Your task to perform on an android device: Go to eBay Image 0: 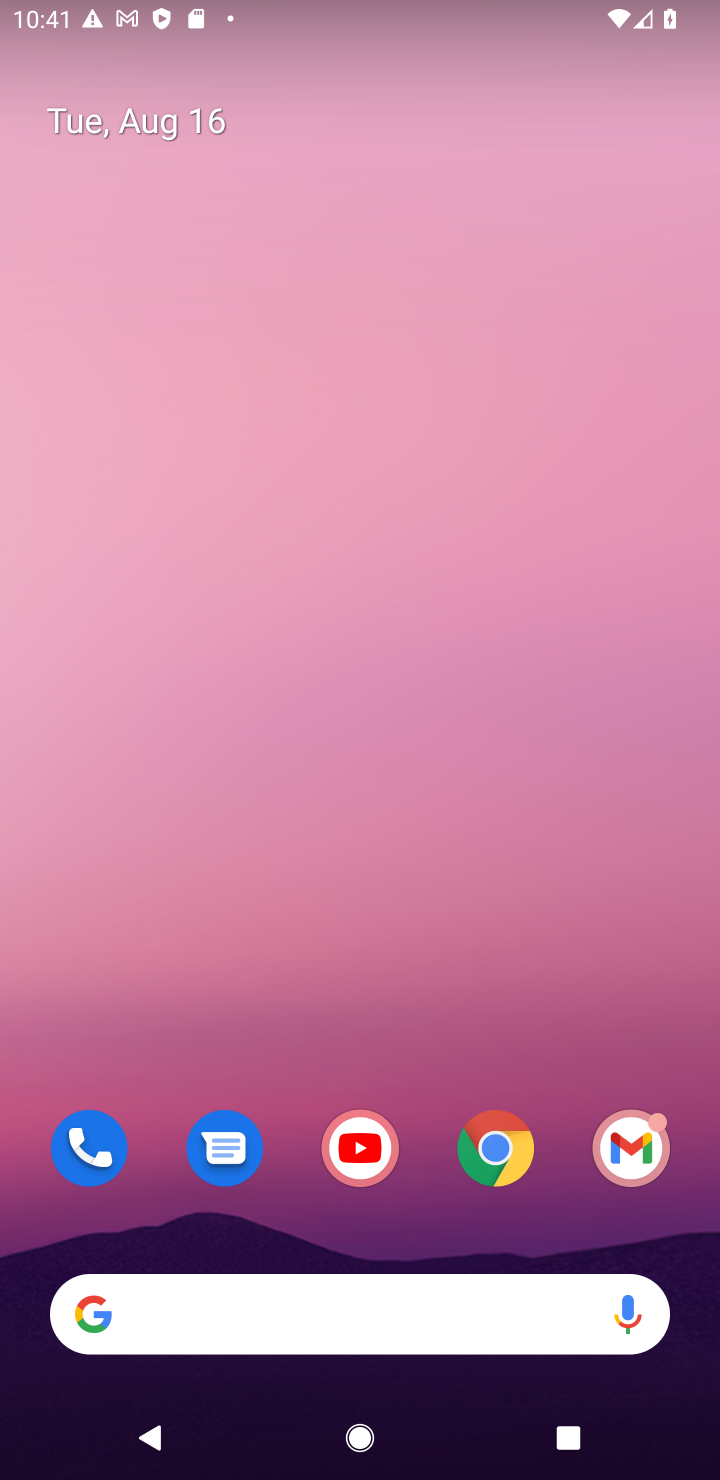
Step 0: press home button
Your task to perform on an android device: Go to eBay Image 1: 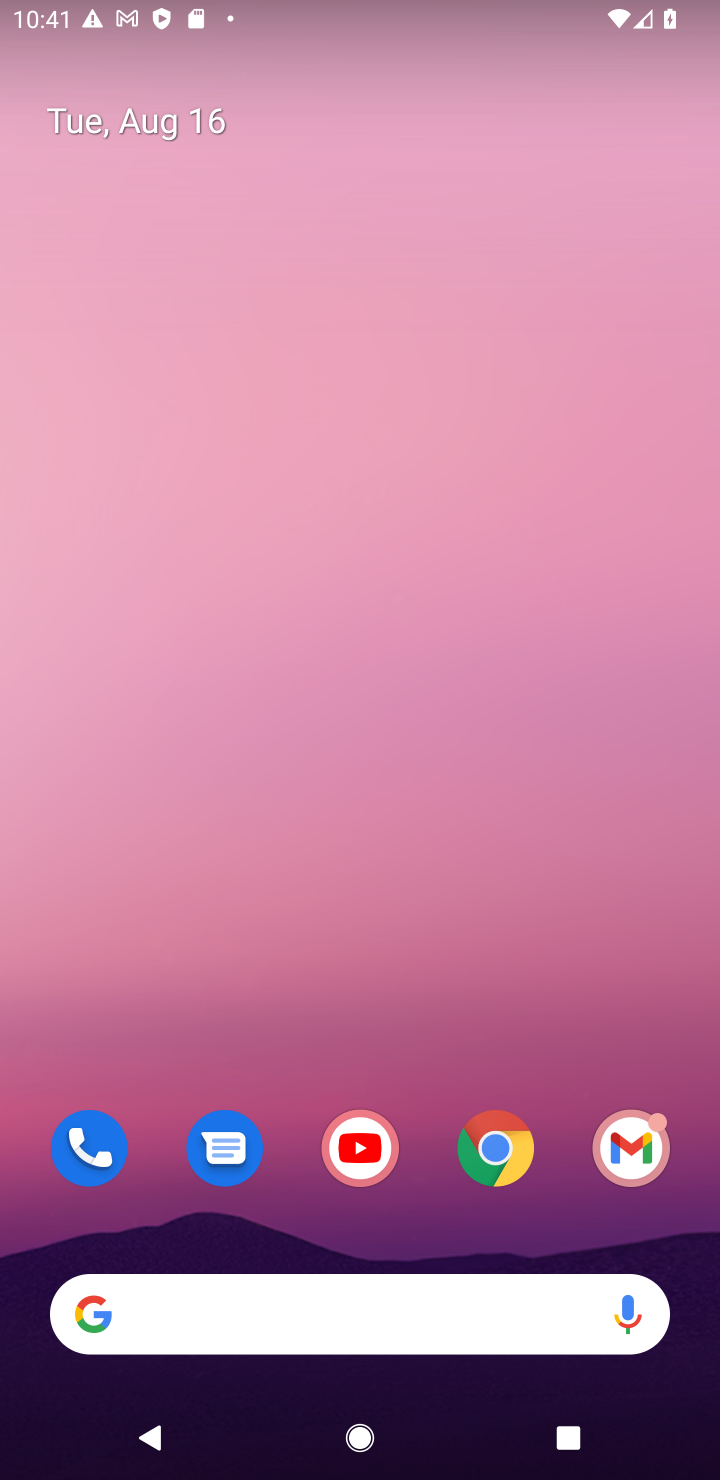
Step 1: click (491, 1126)
Your task to perform on an android device: Go to eBay Image 2: 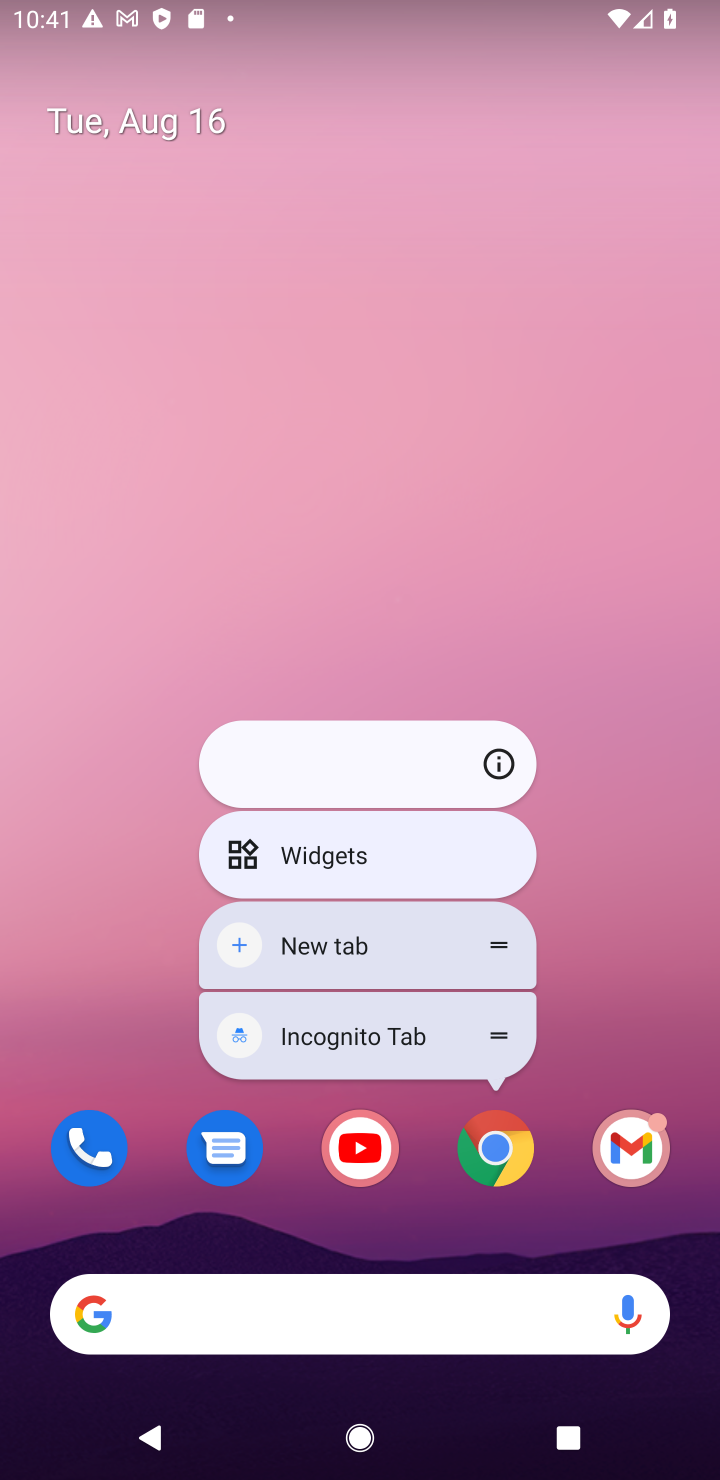
Step 2: click (484, 772)
Your task to perform on an android device: Go to eBay Image 3: 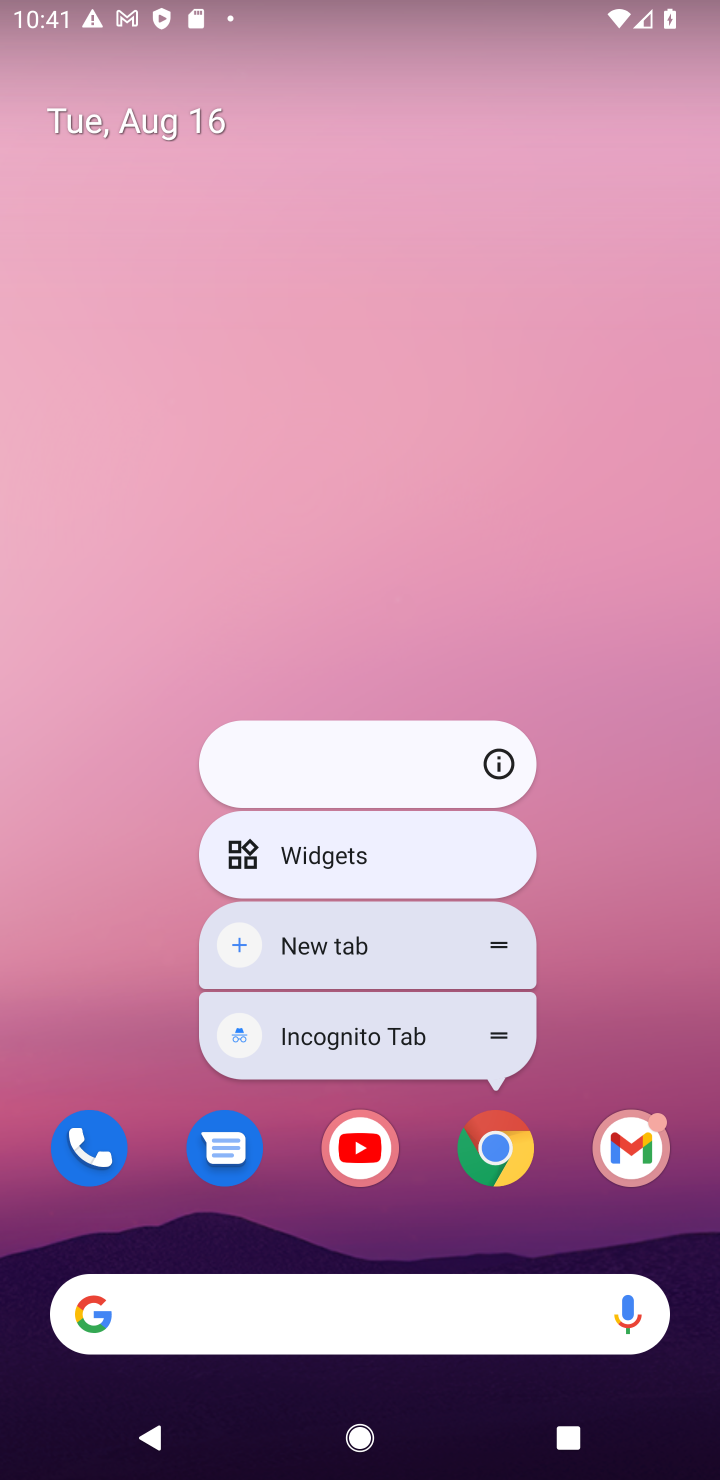
Step 3: click (502, 766)
Your task to perform on an android device: Go to eBay Image 4: 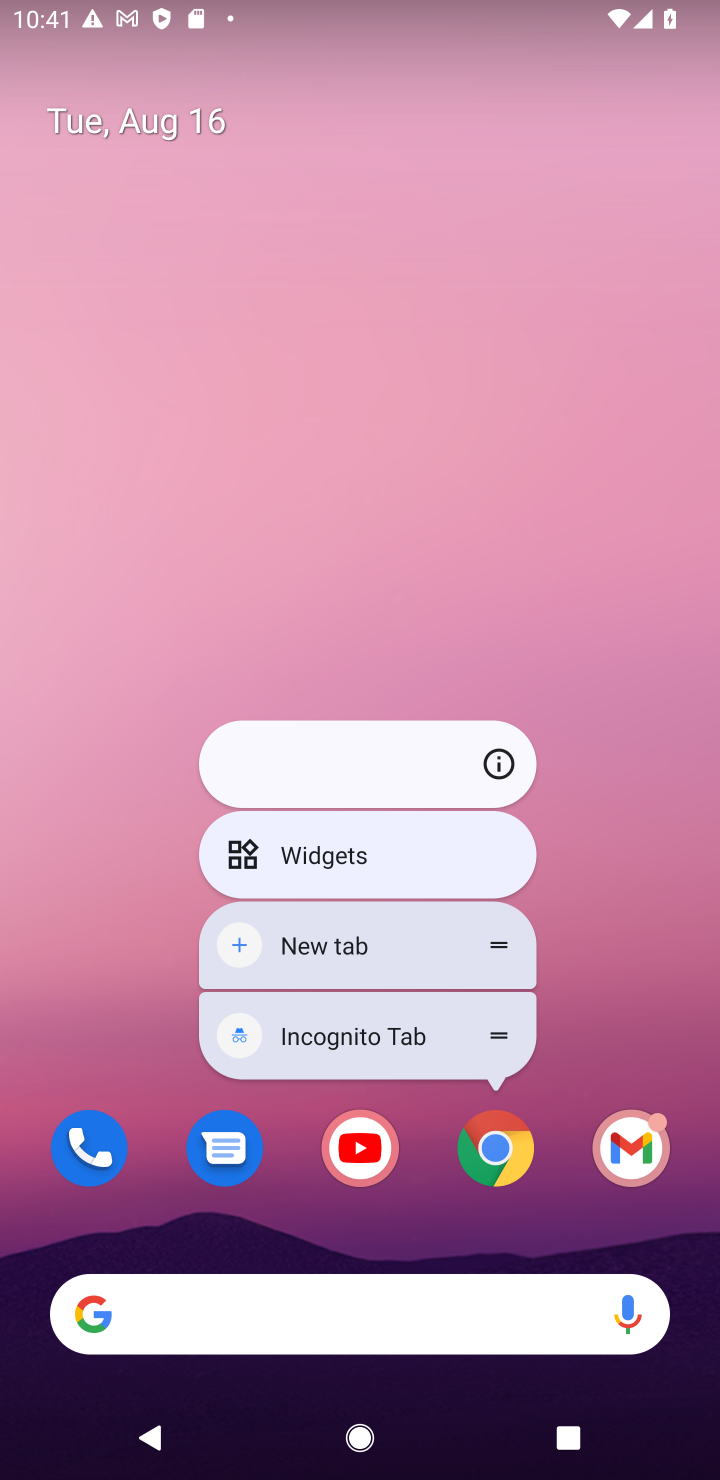
Step 4: click (492, 758)
Your task to perform on an android device: Go to eBay Image 5: 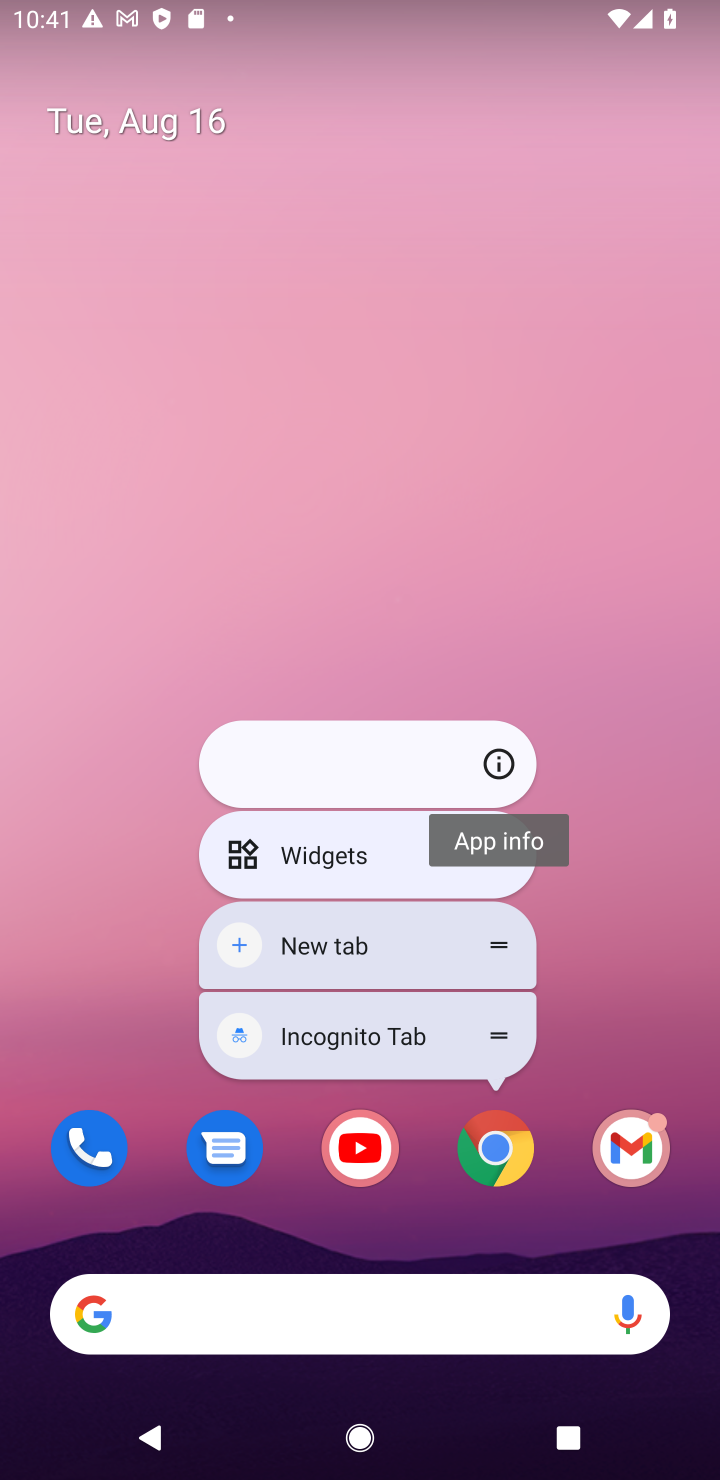
Step 5: click (492, 758)
Your task to perform on an android device: Go to eBay Image 6: 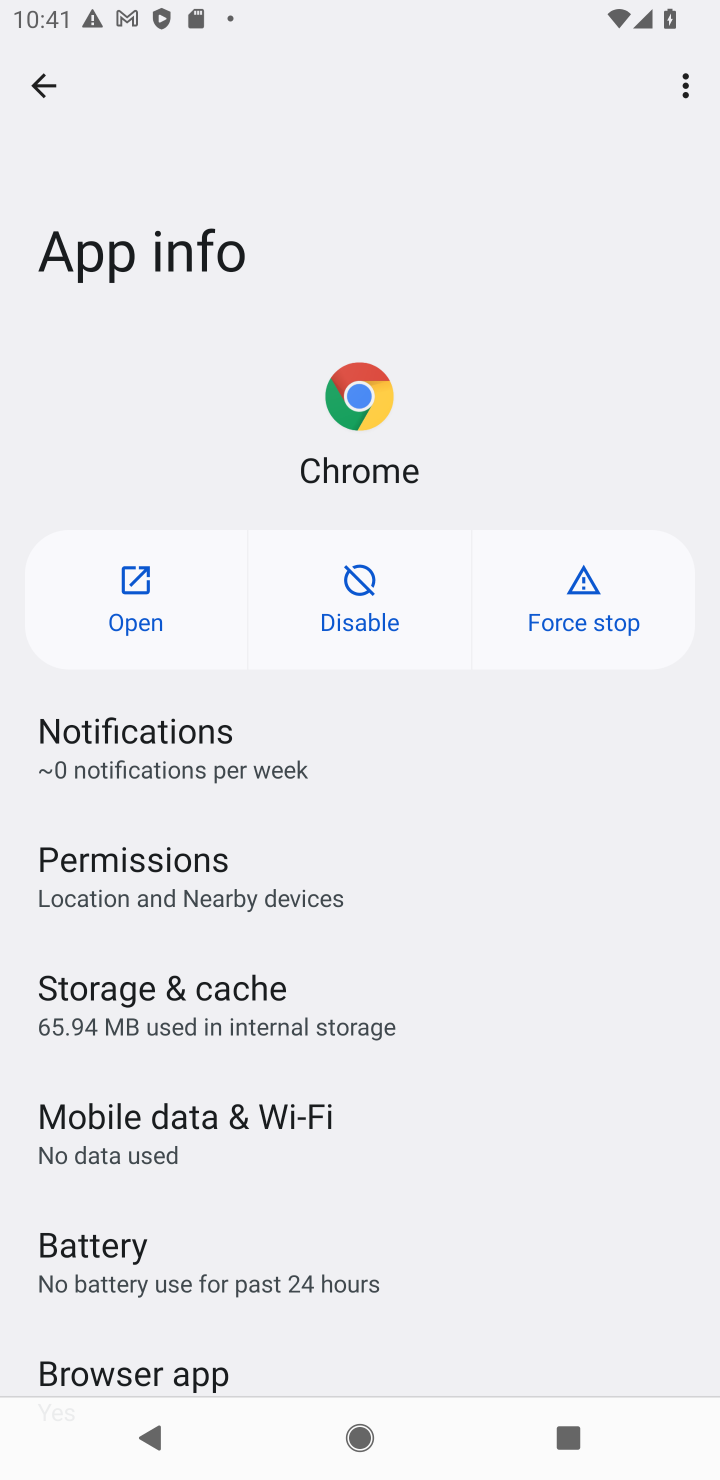
Step 6: press home button
Your task to perform on an android device: Go to eBay Image 7: 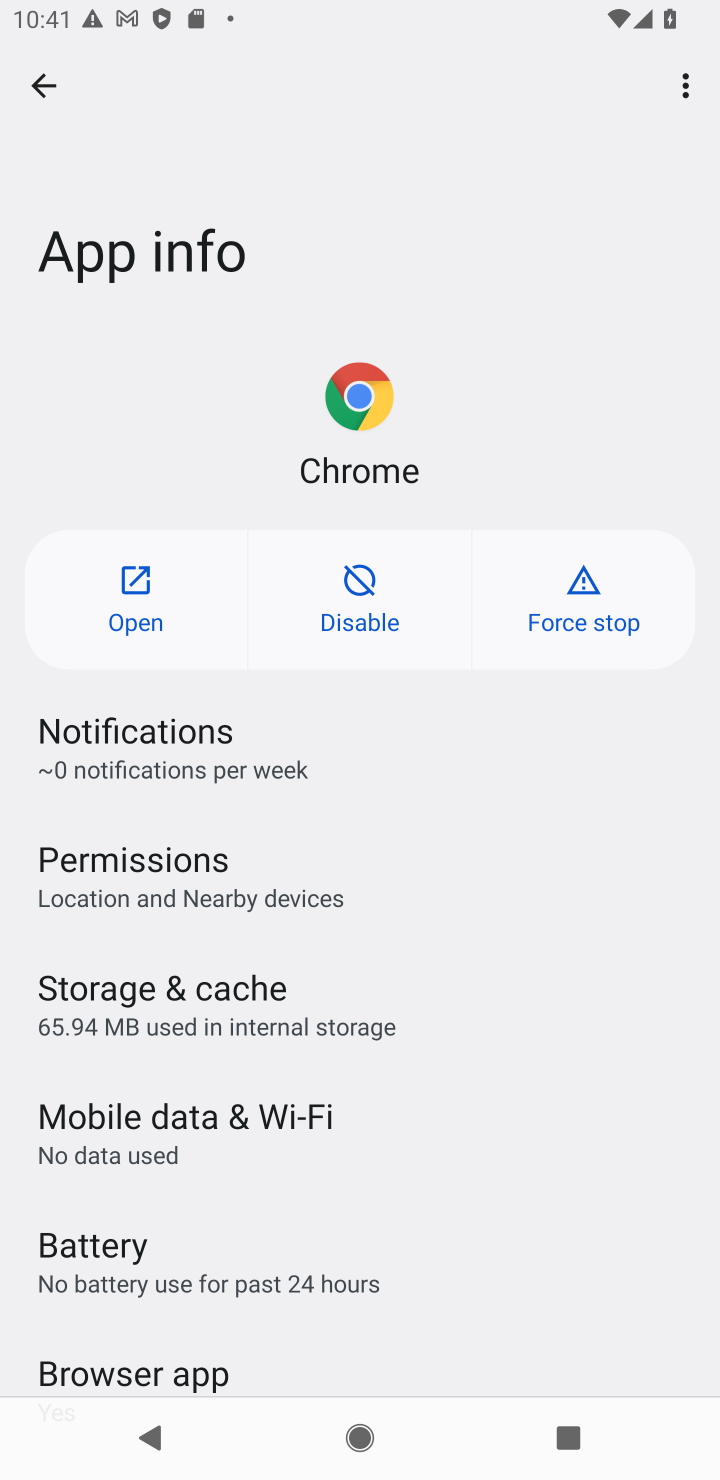
Step 7: press home button
Your task to perform on an android device: Go to eBay Image 8: 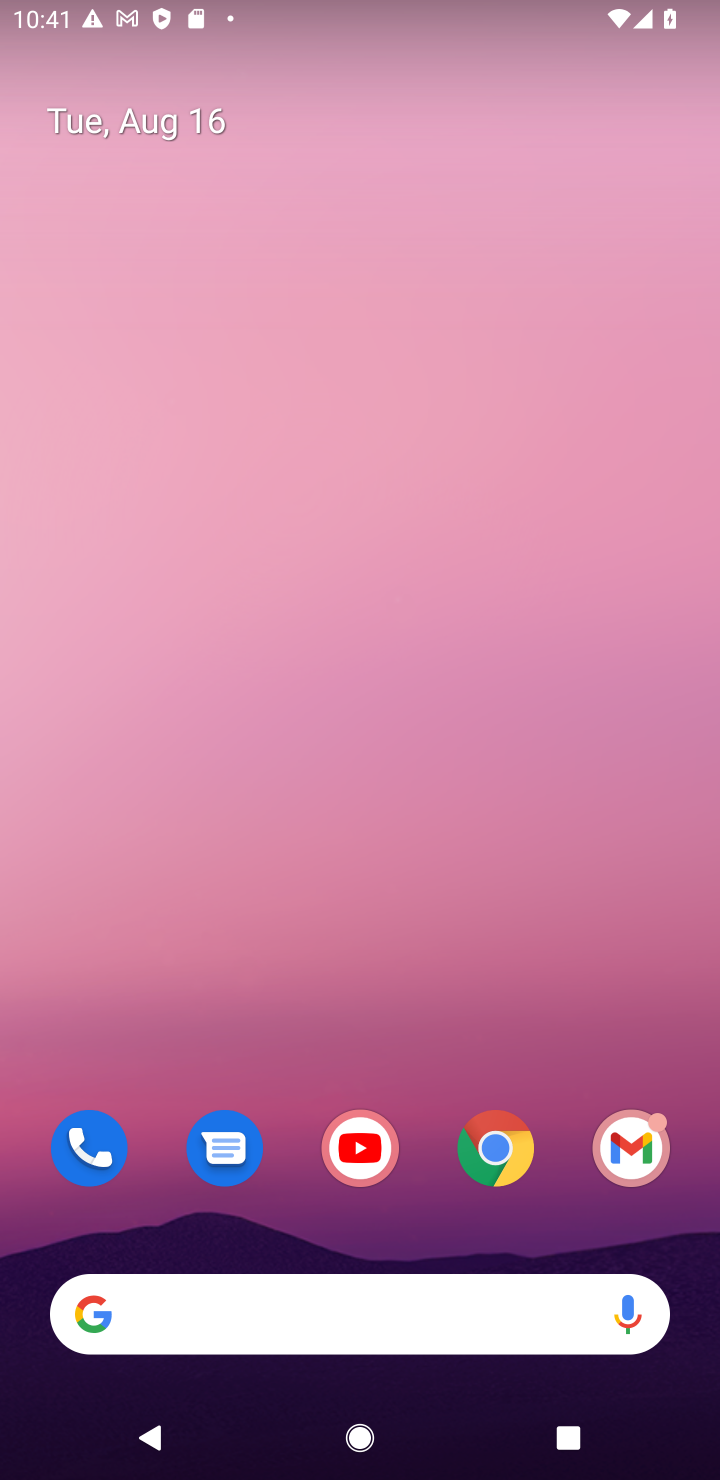
Step 8: click (501, 1137)
Your task to perform on an android device: Go to eBay Image 9: 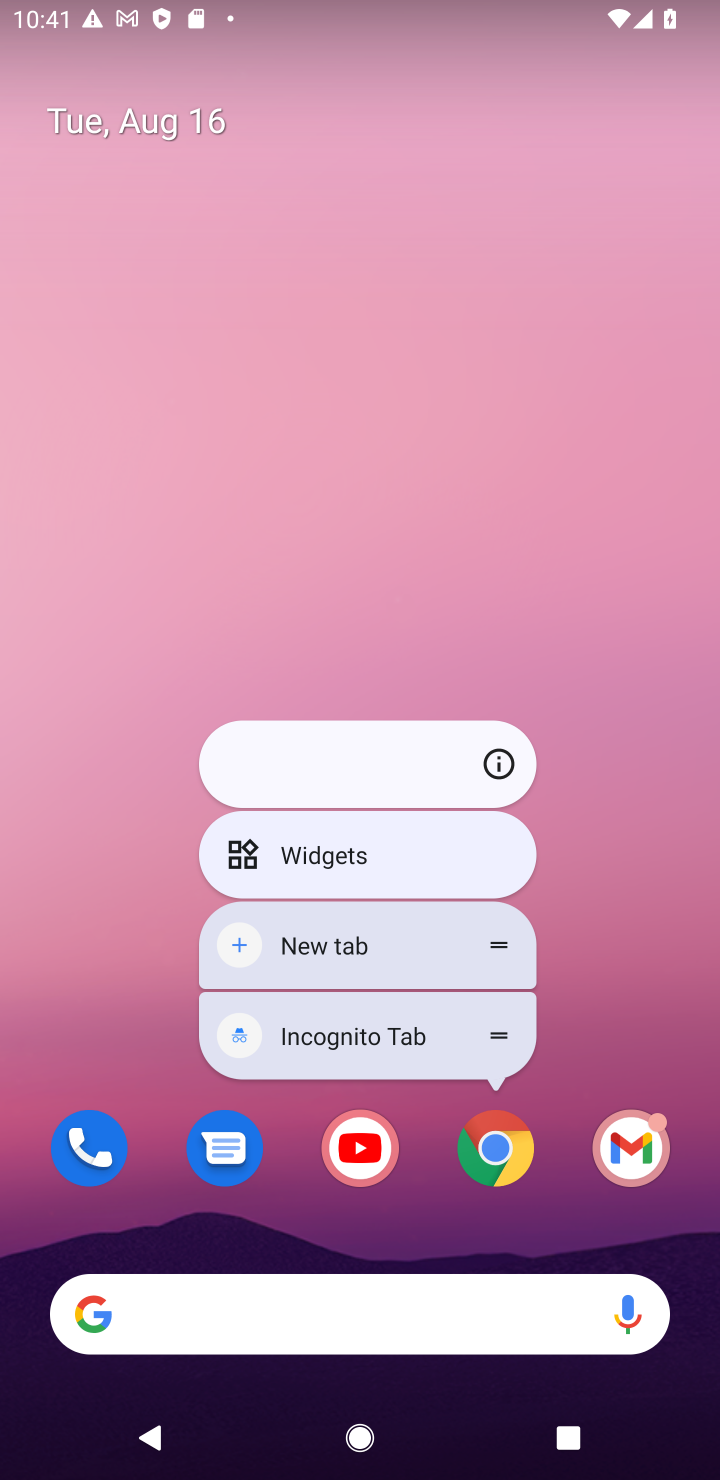
Step 9: click (499, 1163)
Your task to perform on an android device: Go to eBay Image 10: 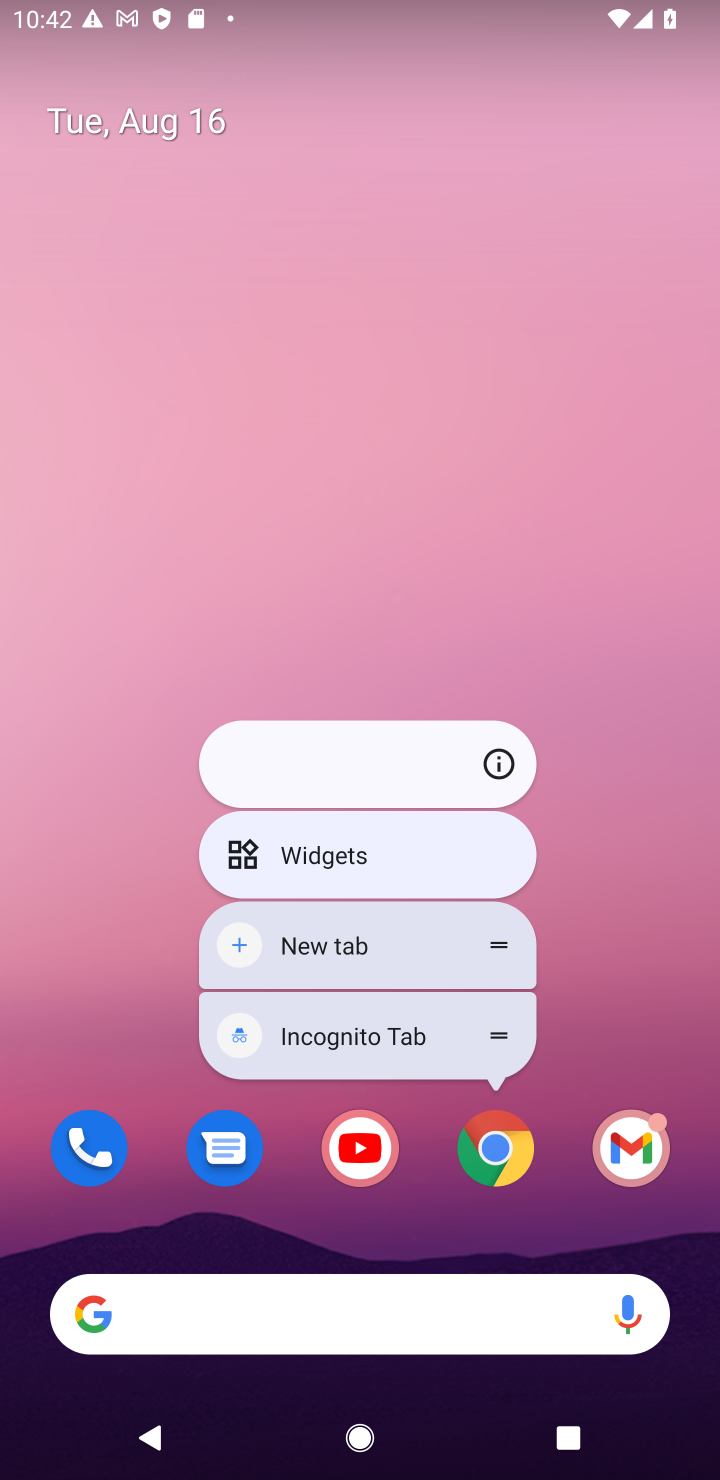
Step 10: click (496, 1134)
Your task to perform on an android device: Go to eBay Image 11: 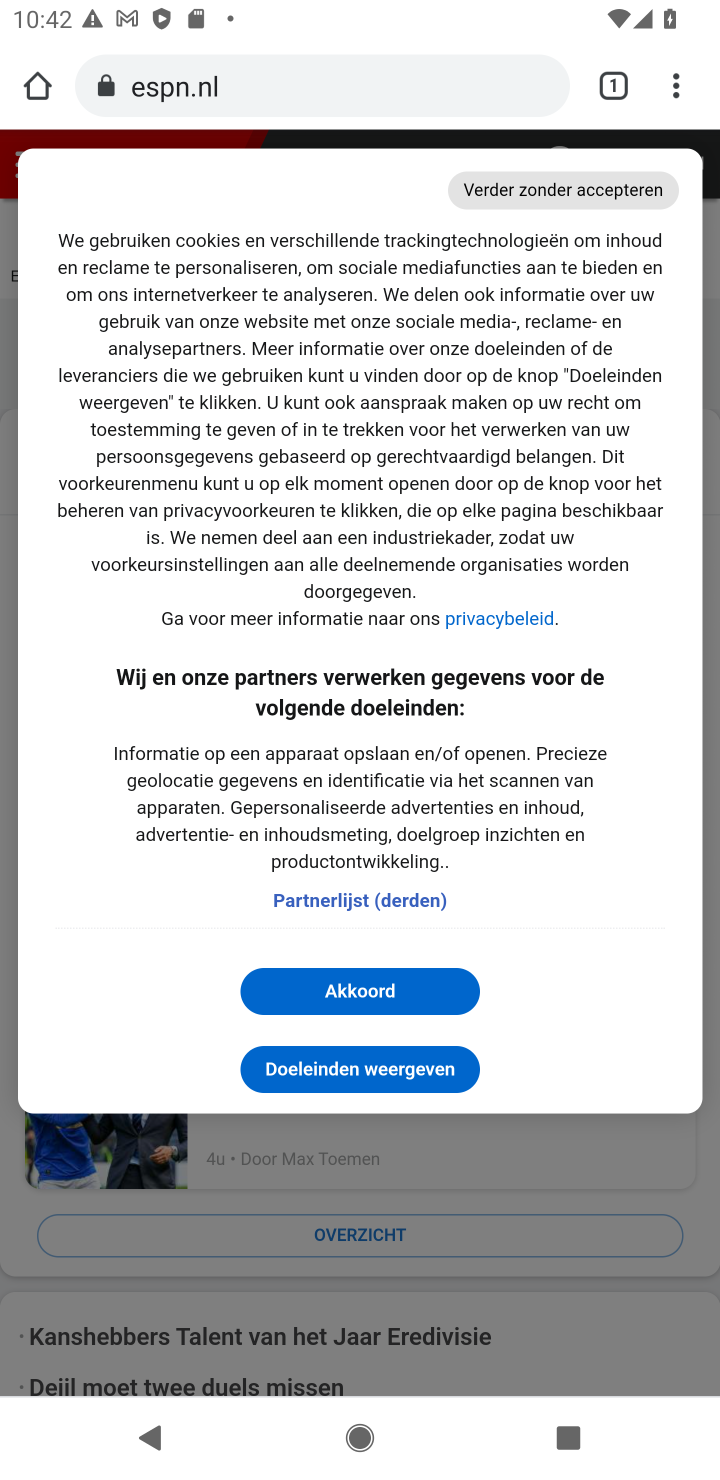
Step 11: click (226, 83)
Your task to perform on an android device: Go to eBay Image 12: 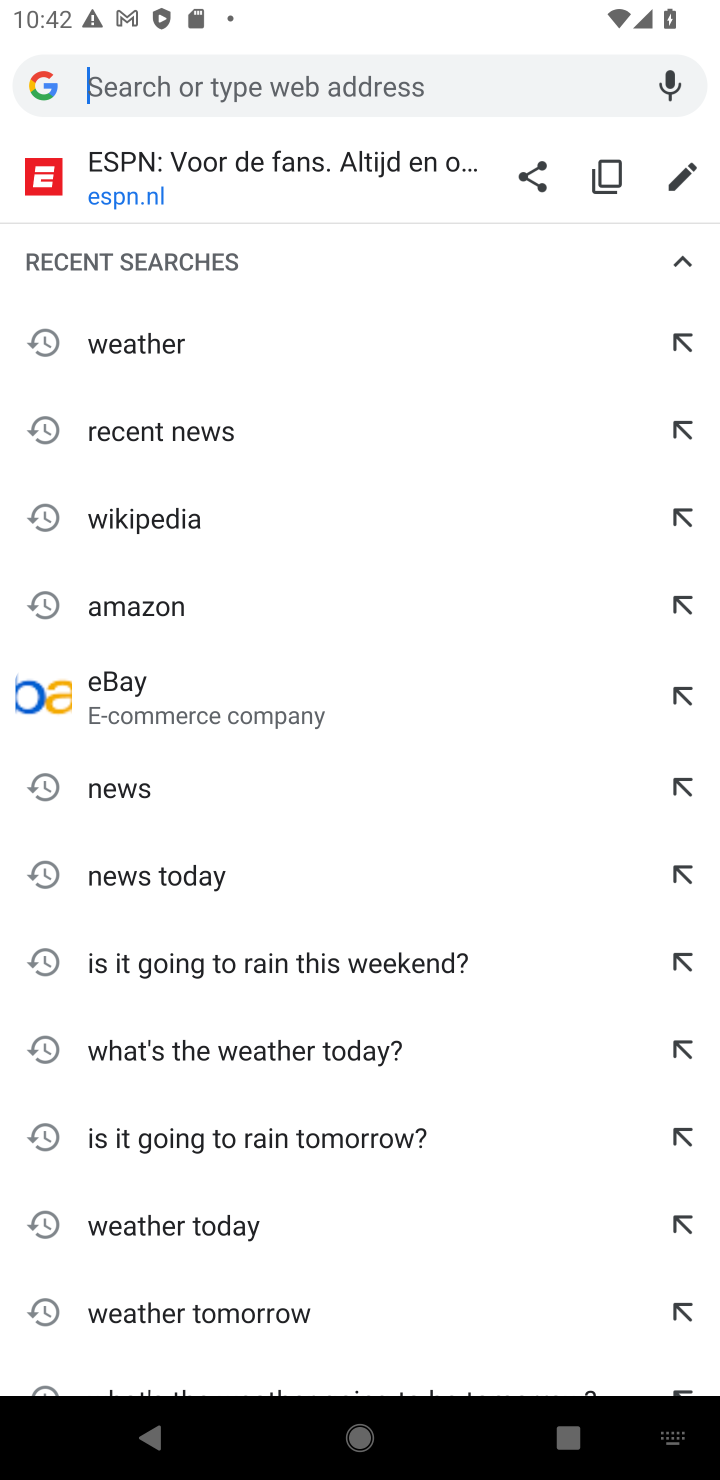
Step 12: click (220, 702)
Your task to perform on an android device: Go to eBay Image 13: 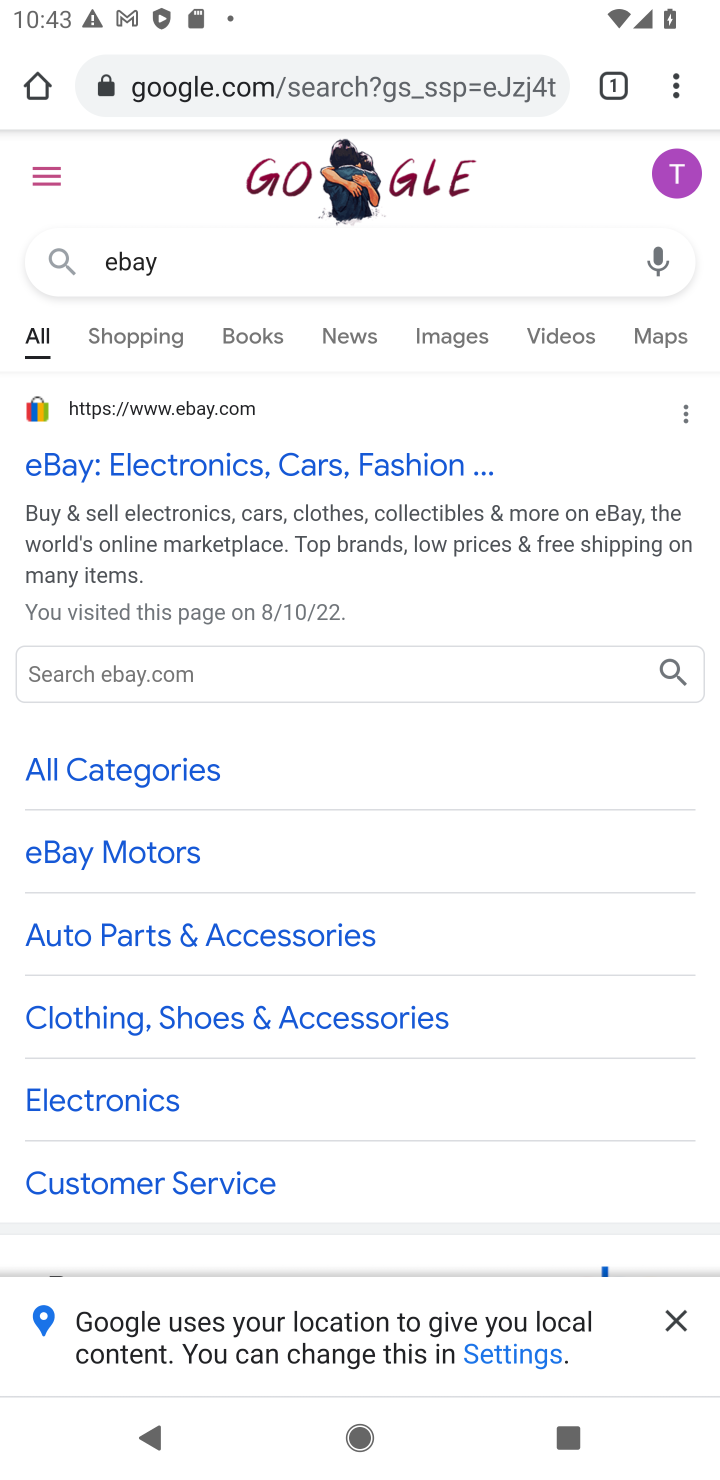
Step 13: click (175, 459)
Your task to perform on an android device: Go to eBay Image 14: 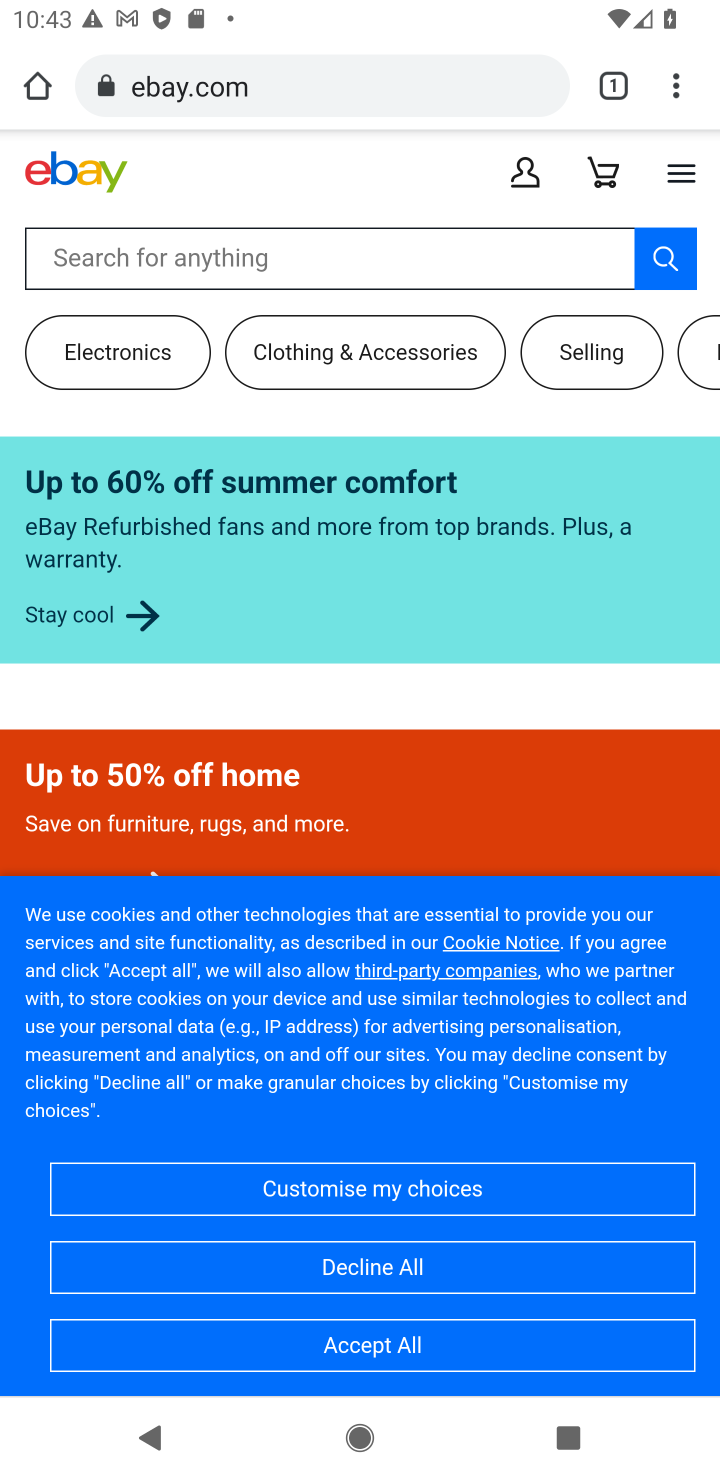
Step 14: task complete